Your task to perform on an android device: turn off notifications settings in the gmail app Image 0: 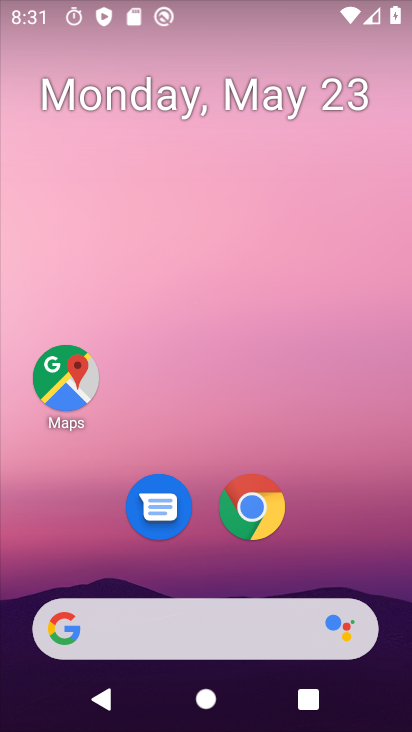
Step 0: click (281, 515)
Your task to perform on an android device: turn off notifications settings in the gmail app Image 1: 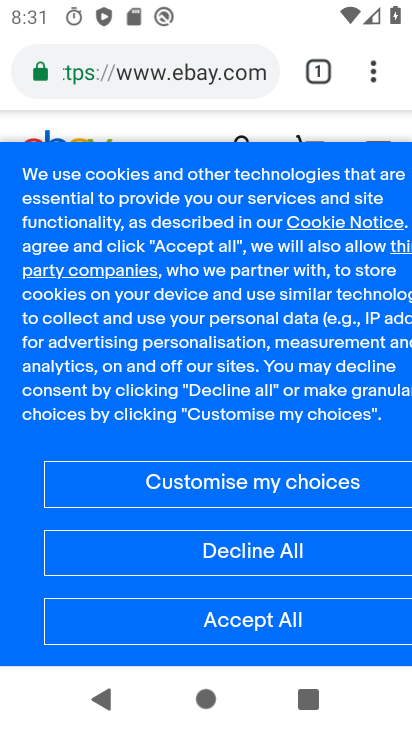
Step 1: click (370, 62)
Your task to perform on an android device: turn off notifications settings in the gmail app Image 2: 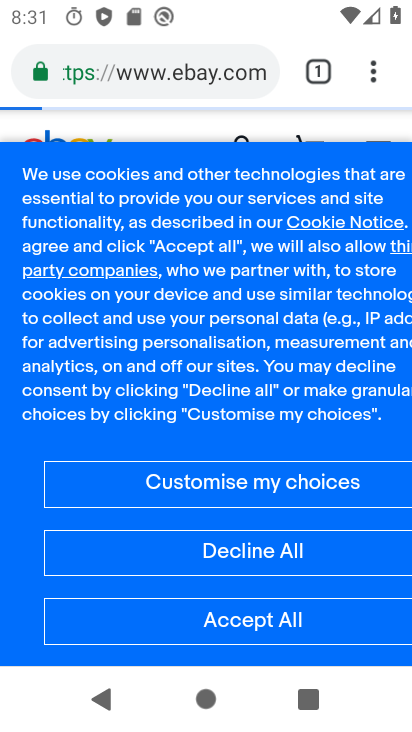
Step 2: press home button
Your task to perform on an android device: turn off notifications settings in the gmail app Image 3: 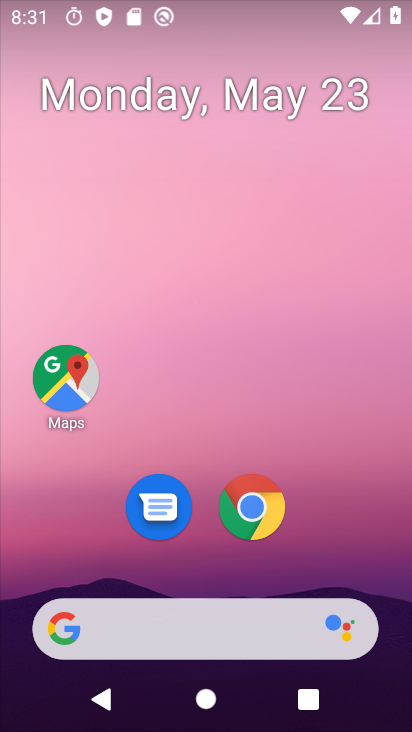
Step 3: drag from (339, 536) to (312, 57)
Your task to perform on an android device: turn off notifications settings in the gmail app Image 4: 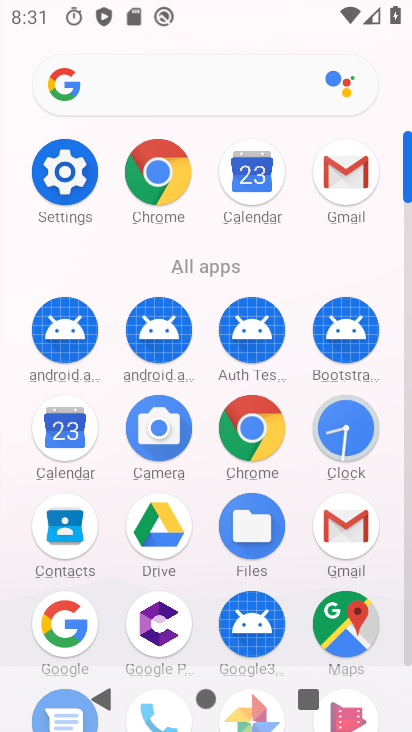
Step 4: click (366, 184)
Your task to perform on an android device: turn off notifications settings in the gmail app Image 5: 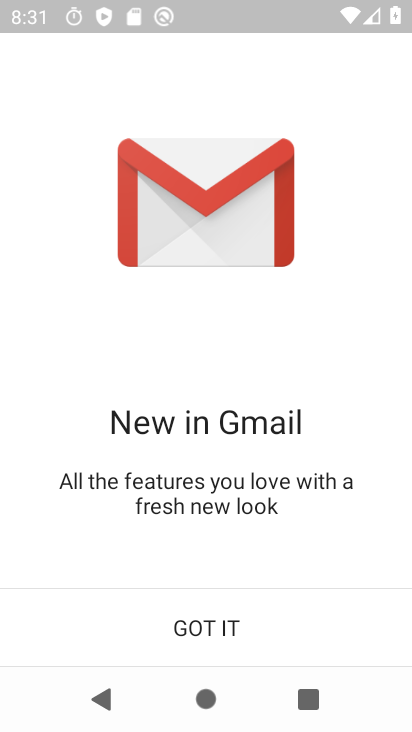
Step 5: click (177, 622)
Your task to perform on an android device: turn off notifications settings in the gmail app Image 6: 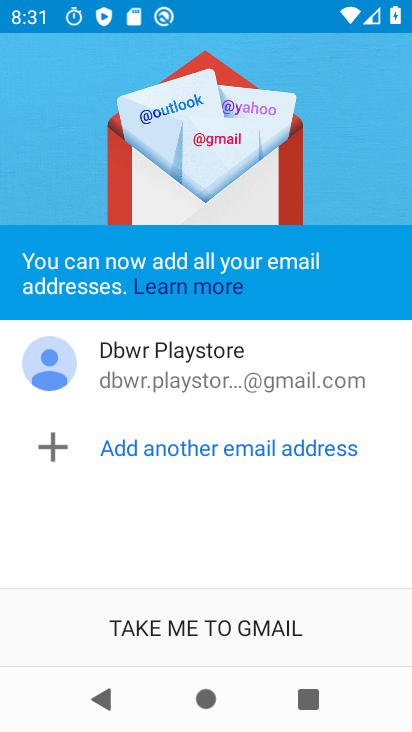
Step 6: click (228, 623)
Your task to perform on an android device: turn off notifications settings in the gmail app Image 7: 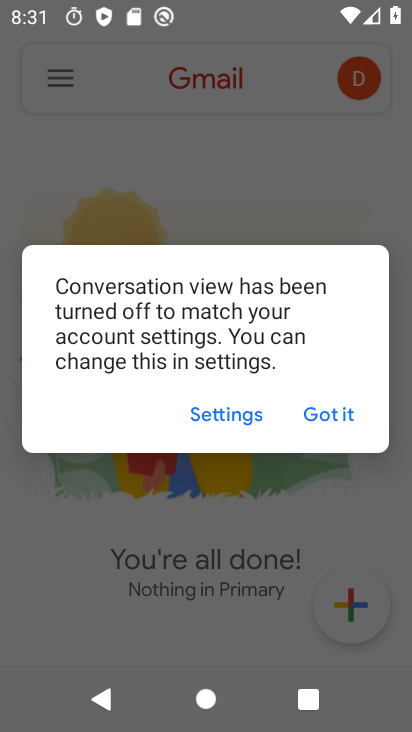
Step 7: click (331, 401)
Your task to perform on an android device: turn off notifications settings in the gmail app Image 8: 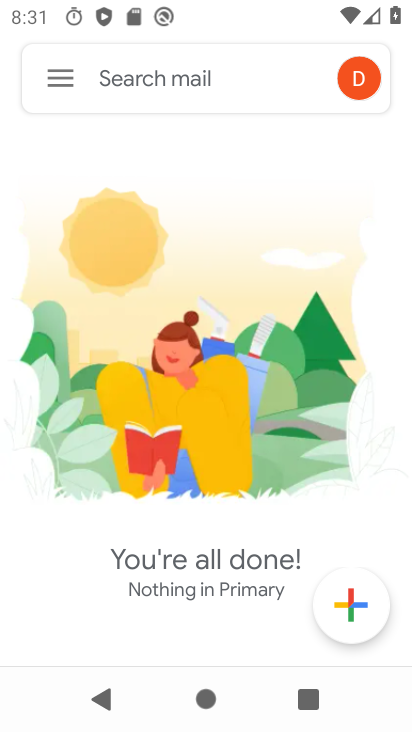
Step 8: click (48, 84)
Your task to perform on an android device: turn off notifications settings in the gmail app Image 9: 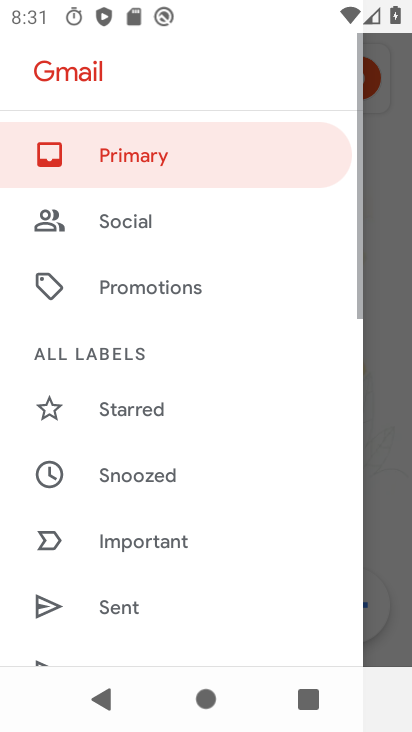
Step 9: drag from (212, 621) to (185, 128)
Your task to perform on an android device: turn off notifications settings in the gmail app Image 10: 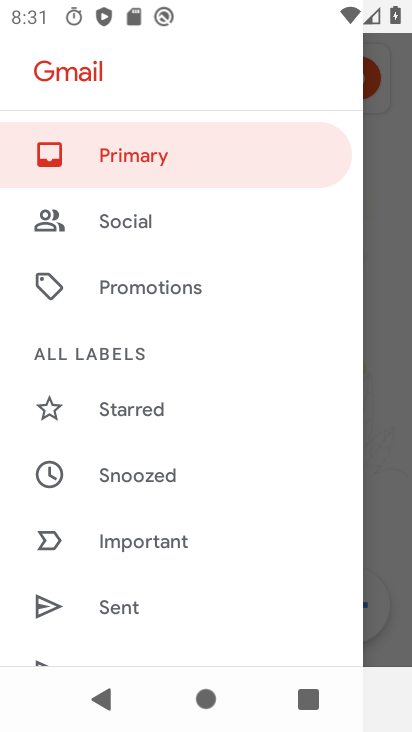
Step 10: drag from (190, 483) to (233, 86)
Your task to perform on an android device: turn off notifications settings in the gmail app Image 11: 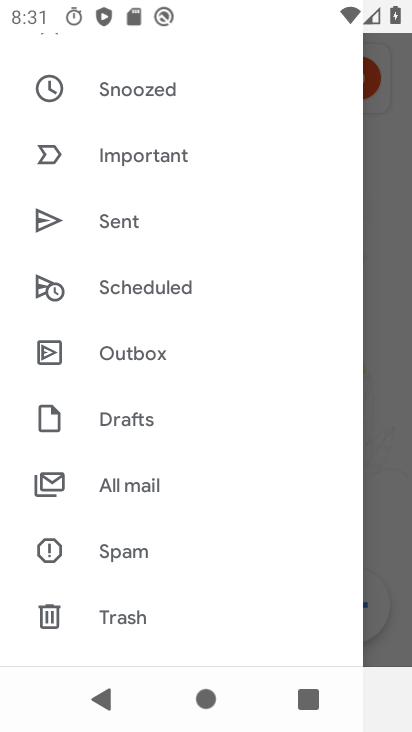
Step 11: drag from (215, 528) to (215, 149)
Your task to perform on an android device: turn off notifications settings in the gmail app Image 12: 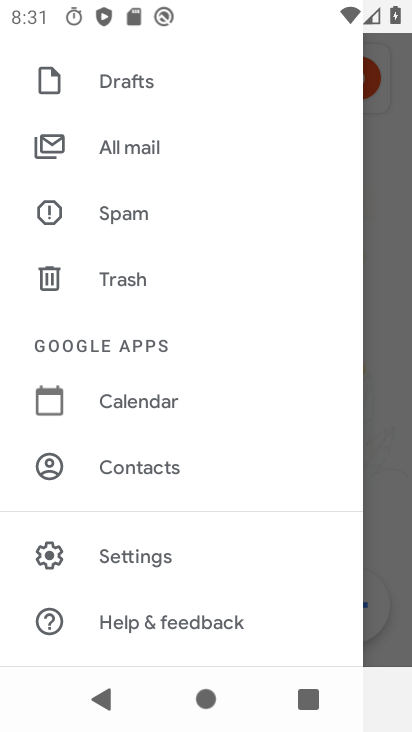
Step 12: click (169, 548)
Your task to perform on an android device: turn off notifications settings in the gmail app Image 13: 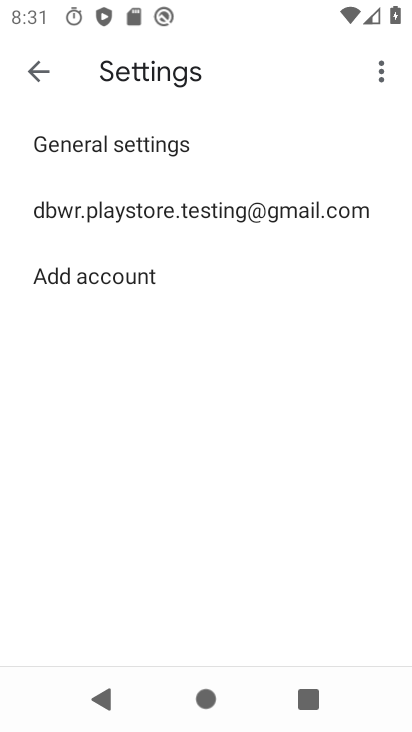
Step 13: click (201, 205)
Your task to perform on an android device: turn off notifications settings in the gmail app Image 14: 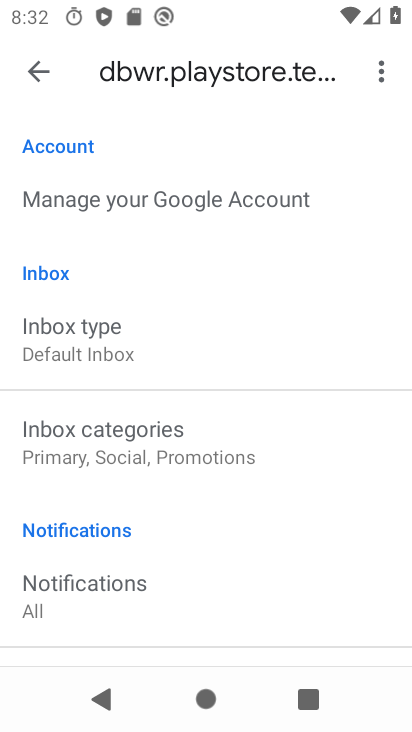
Step 14: drag from (111, 574) to (158, 174)
Your task to perform on an android device: turn off notifications settings in the gmail app Image 15: 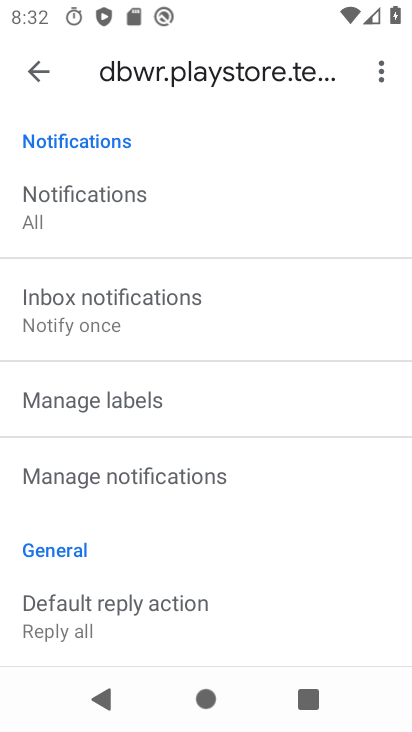
Step 15: click (97, 208)
Your task to perform on an android device: turn off notifications settings in the gmail app Image 16: 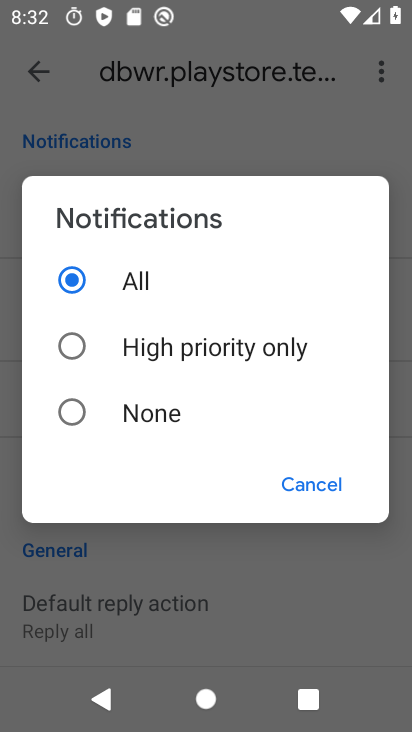
Step 16: click (116, 407)
Your task to perform on an android device: turn off notifications settings in the gmail app Image 17: 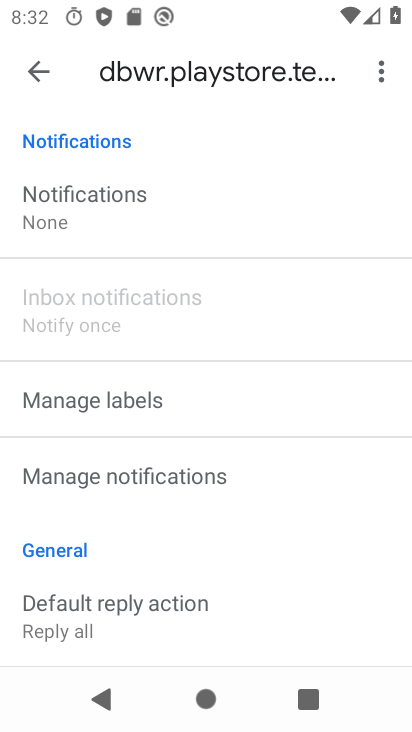
Step 17: task complete